Your task to perform on an android device: Open Google Chrome and open the bookmarks view Image 0: 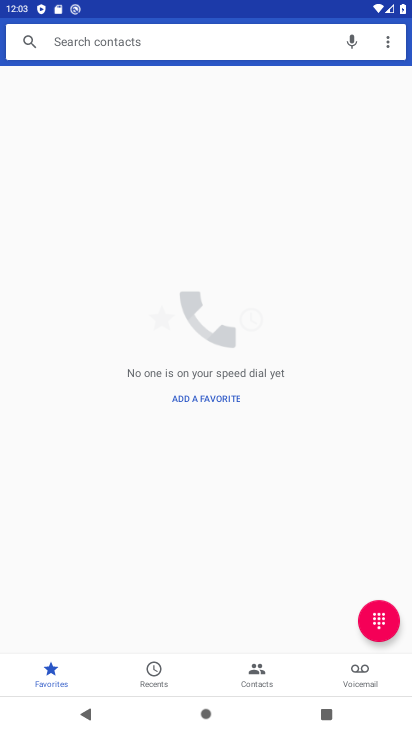
Step 0: press home button
Your task to perform on an android device: Open Google Chrome and open the bookmarks view Image 1: 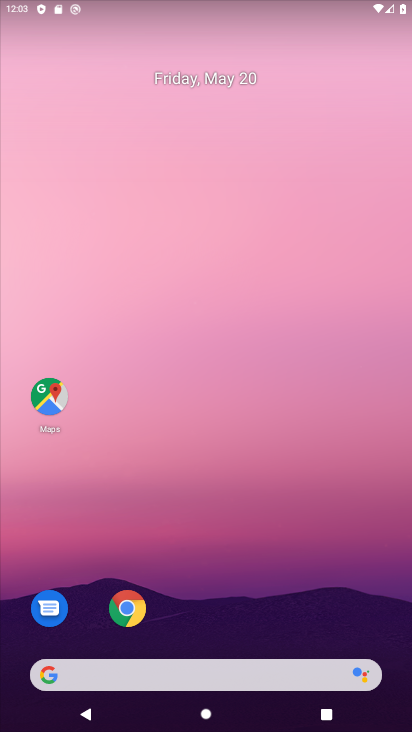
Step 1: drag from (367, 615) to (379, 86)
Your task to perform on an android device: Open Google Chrome and open the bookmarks view Image 2: 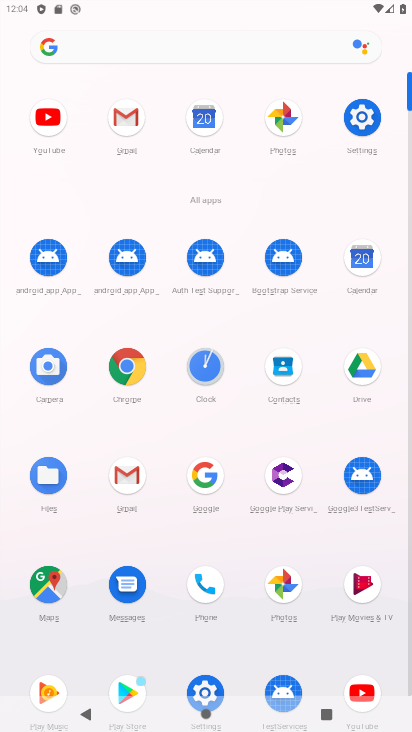
Step 2: click (119, 371)
Your task to perform on an android device: Open Google Chrome and open the bookmarks view Image 3: 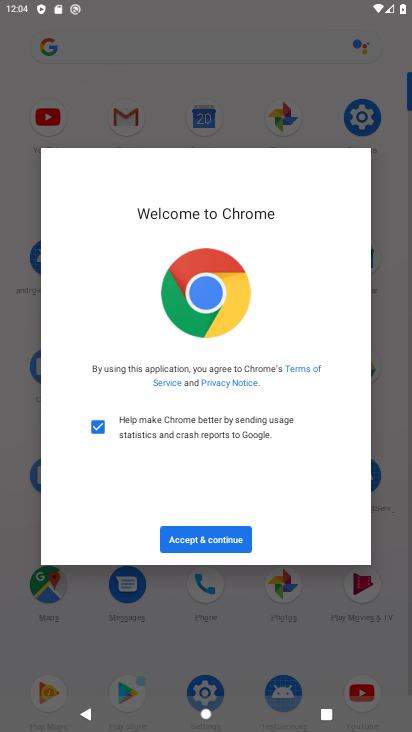
Step 3: click (212, 546)
Your task to perform on an android device: Open Google Chrome and open the bookmarks view Image 4: 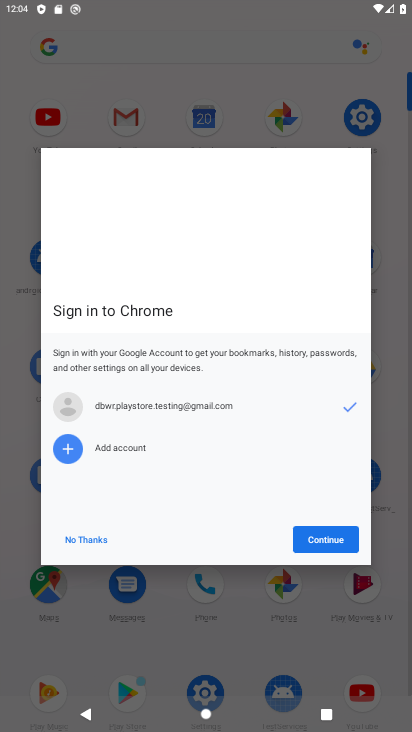
Step 4: click (326, 543)
Your task to perform on an android device: Open Google Chrome and open the bookmarks view Image 5: 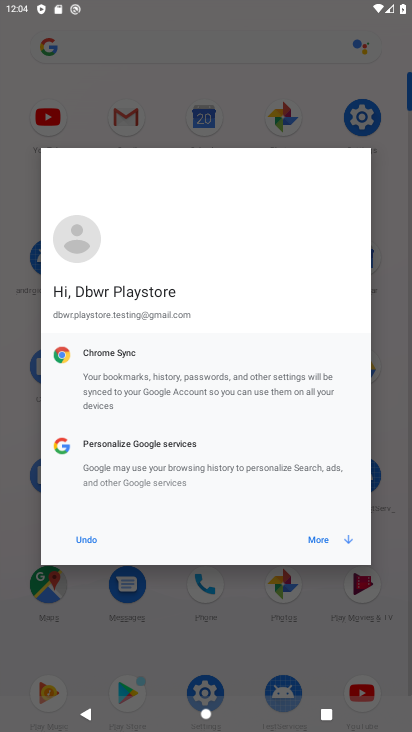
Step 5: click (319, 536)
Your task to perform on an android device: Open Google Chrome and open the bookmarks view Image 6: 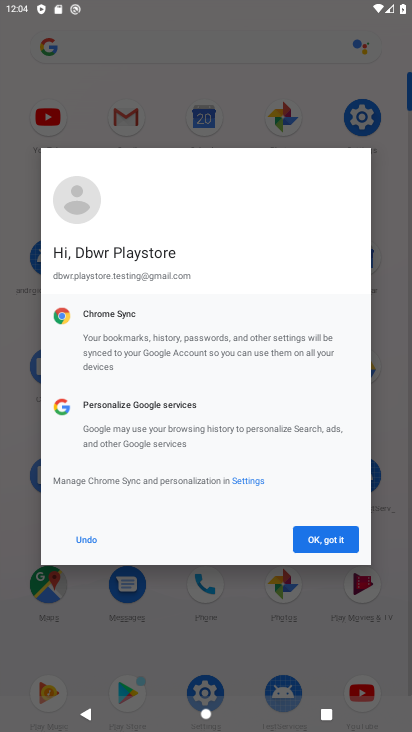
Step 6: click (328, 532)
Your task to perform on an android device: Open Google Chrome and open the bookmarks view Image 7: 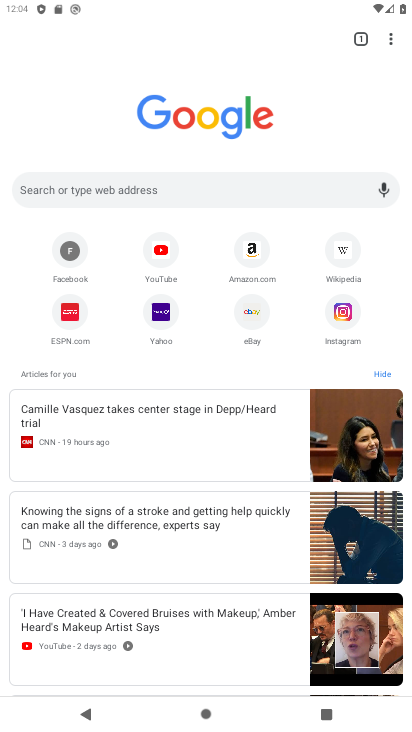
Step 7: task complete